Your task to perform on an android device: Open Android settings Image 0: 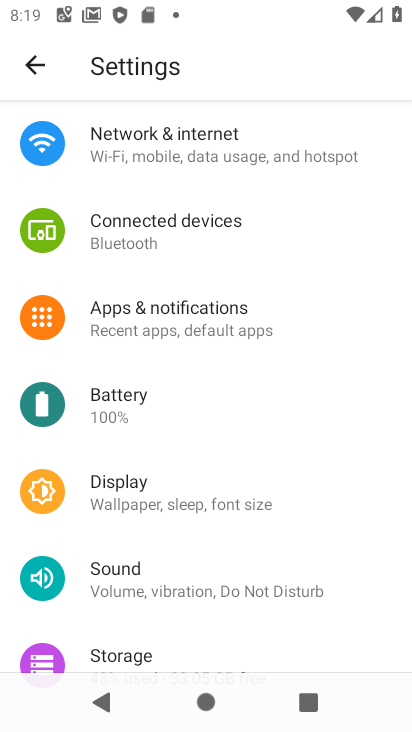
Step 0: task complete